Your task to perform on an android device: turn off improve location accuracy Image 0: 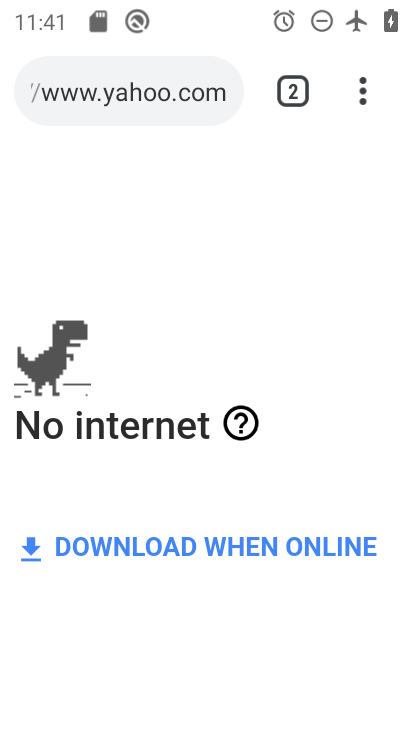
Step 0: press home button
Your task to perform on an android device: turn off improve location accuracy Image 1: 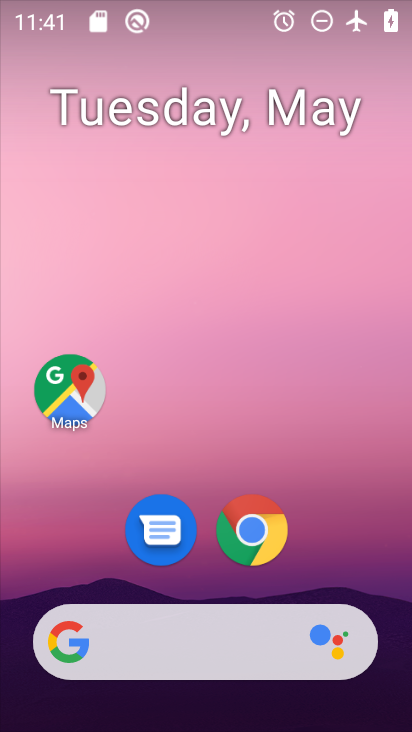
Step 1: drag from (340, 516) to (304, 47)
Your task to perform on an android device: turn off improve location accuracy Image 2: 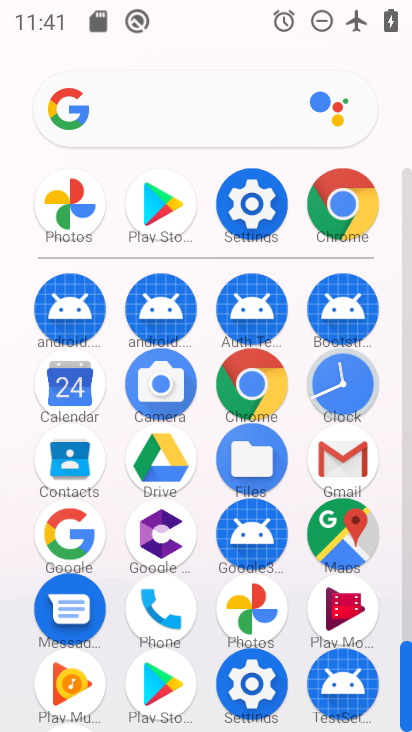
Step 2: click (257, 190)
Your task to perform on an android device: turn off improve location accuracy Image 3: 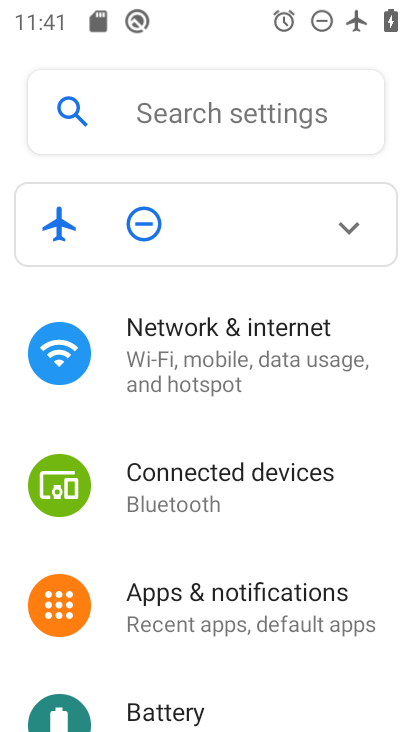
Step 3: drag from (260, 656) to (257, 224)
Your task to perform on an android device: turn off improve location accuracy Image 4: 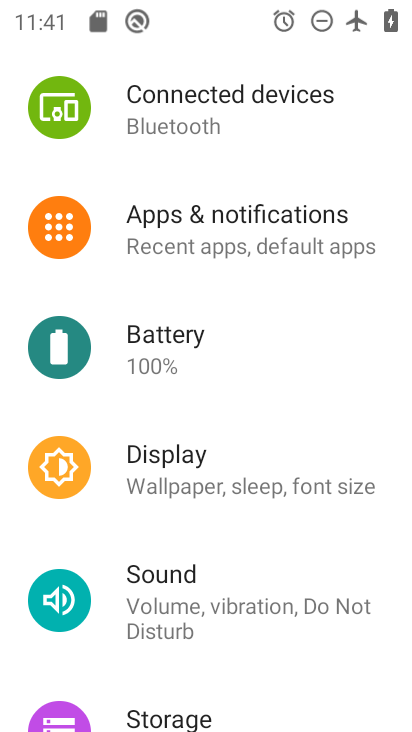
Step 4: drag from (172, 679) to (204, 280)
Your task to perform on an android device: turn off improve location accuracy Image 5: 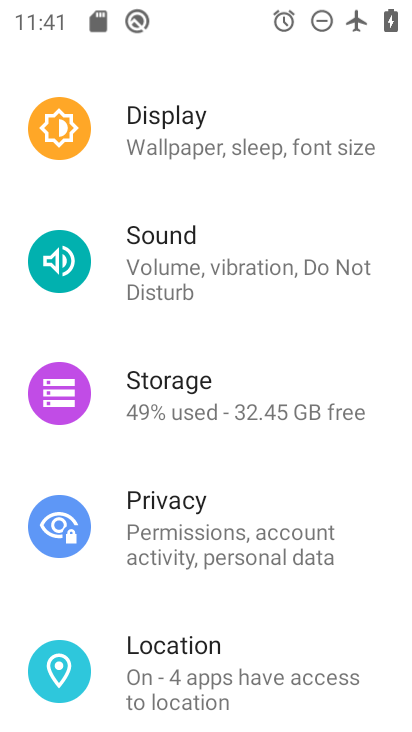
Step 5: click (183, 671)
Your task to perform on an android device: turn off improve location accuracy Image 6: 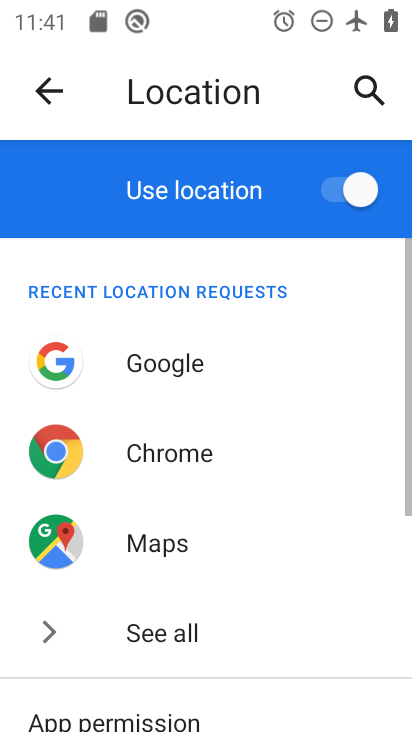
Step 6: drag from (252, 667) to (286, 154)
Your task to perform on an android device: turn off improve location accuracy Image 7: 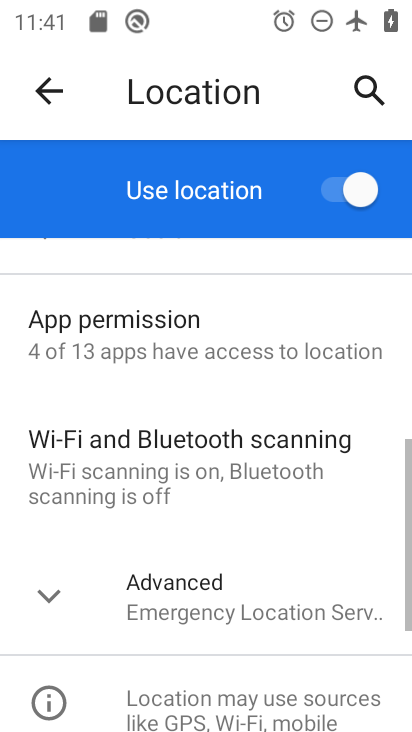
Step 7: click (217, 593)
Your task to perform on an android device: turn off improve location accuracy Image 8: 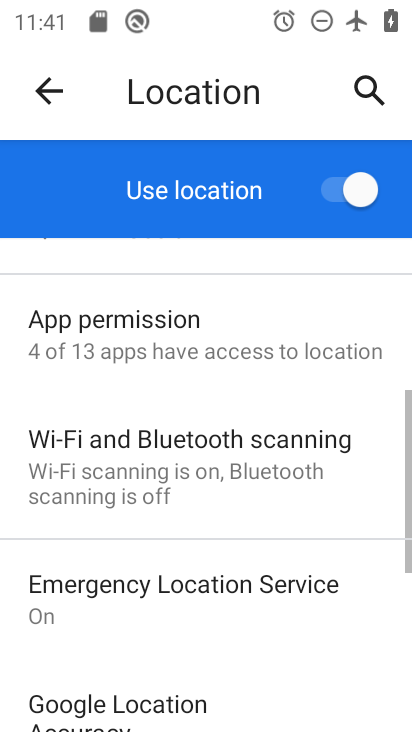
Step 8: drag from (238, 602) to (310, 198)
Your task to perform on an android device: turn off improve location accuracy Image 9: 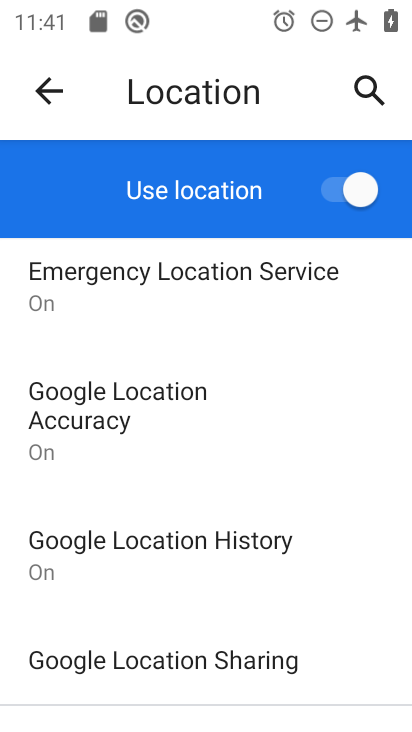
Step 9: click (152, 416)
Your task to perform on an android device: turn off improve location accuracy Image 10: 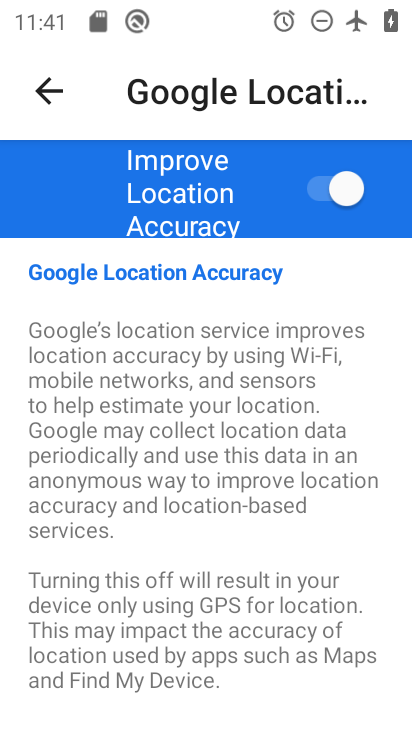
Step 10: click (345, 187)
Your task to perform on an android device: turn off improve location accuracy Image 11: 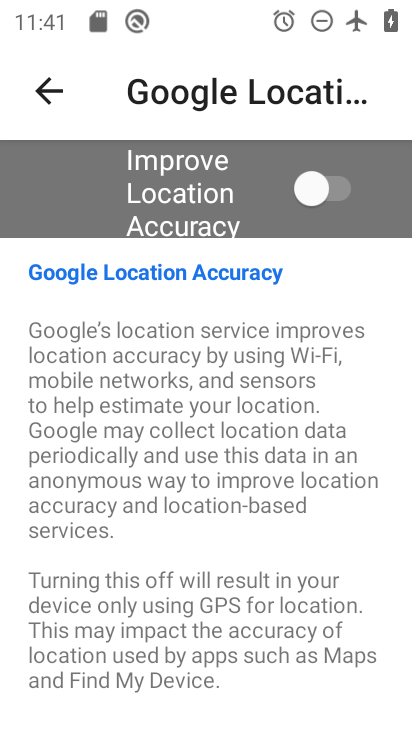
Step 11: task complete